Your task to perform on an android device: What is the news today? Image 0: 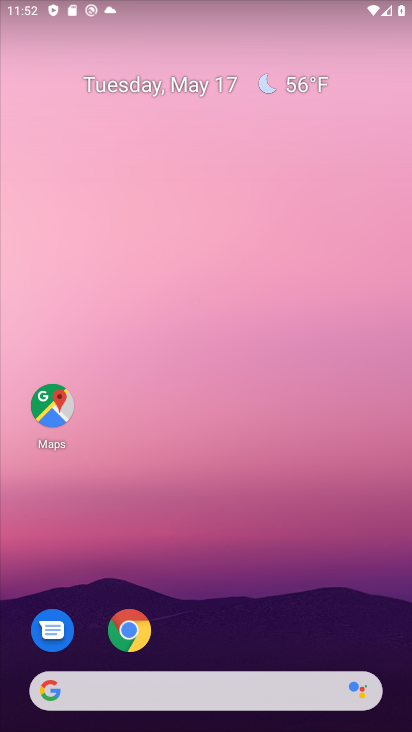
Step 0: drag from (10, 326) to (377, 362)
Your task to perform on an android device: What is the news today? Image 1: 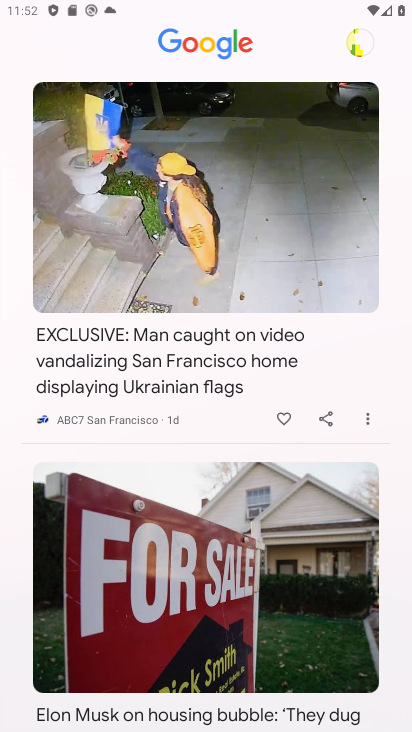
Step 1: task complete